Your task to perform on an android device: turn on data saver in the chrome app Image 0: 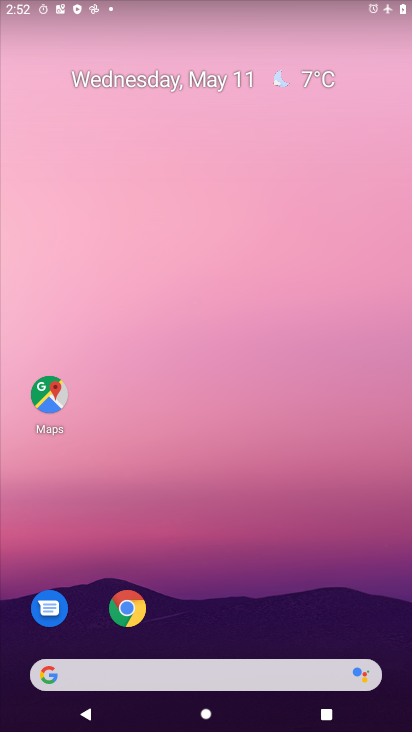
Step 0: click (127, 604)
Your task to perform on an android device: turn on data saver in the chrome app Image 1: 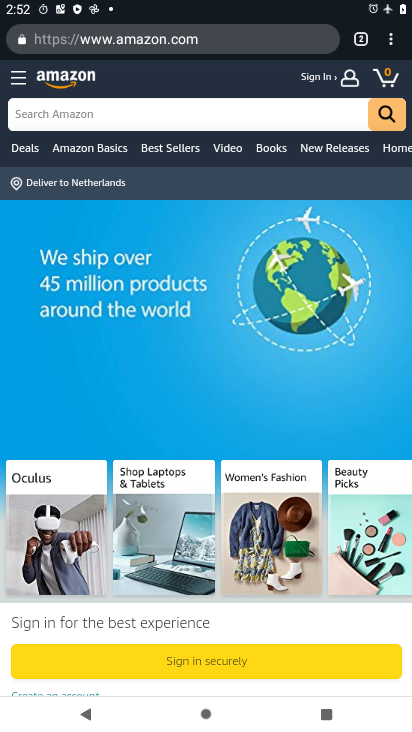
Step 1: click (383, 45)
Your task to perform on an android device: turn on data saver in the chrome app Image 2: 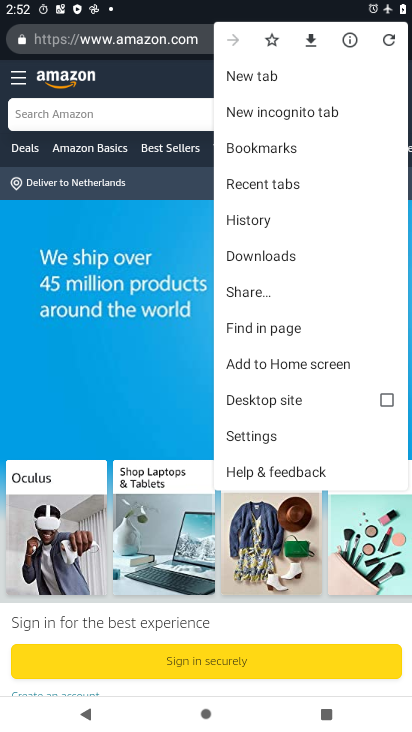
Step 2: click (284, 431)
Your task to perform on an android device: turn on data saver in the chrome app Image 3: 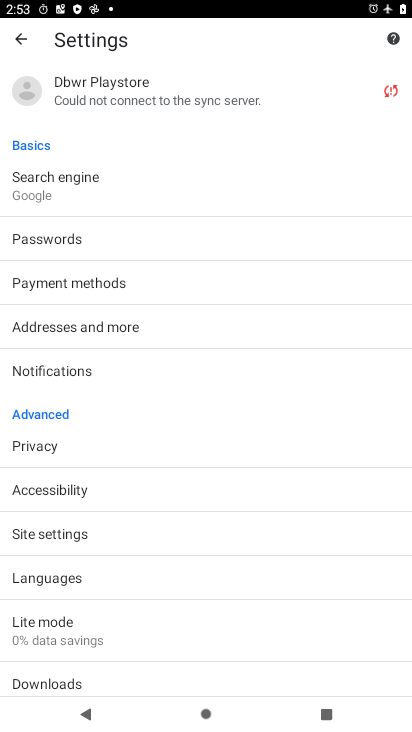
Step 3: click (79, 634)
Your task to perform on an android device: turn on data saver in the chrome app Image 4: 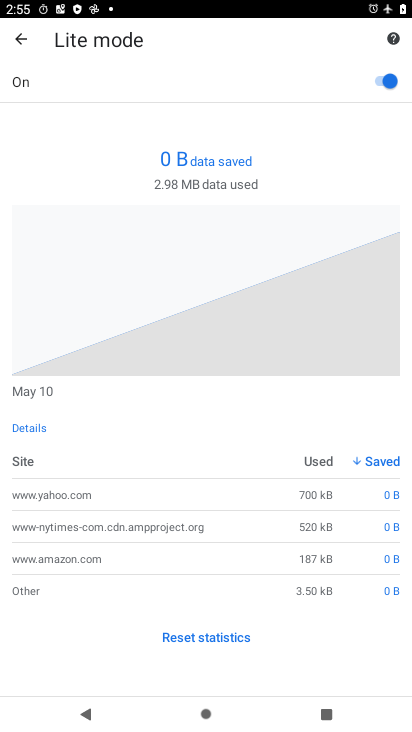
Step 4: task complete